Your task to perform on an android device: set default search engine in the chrome app Image 0: 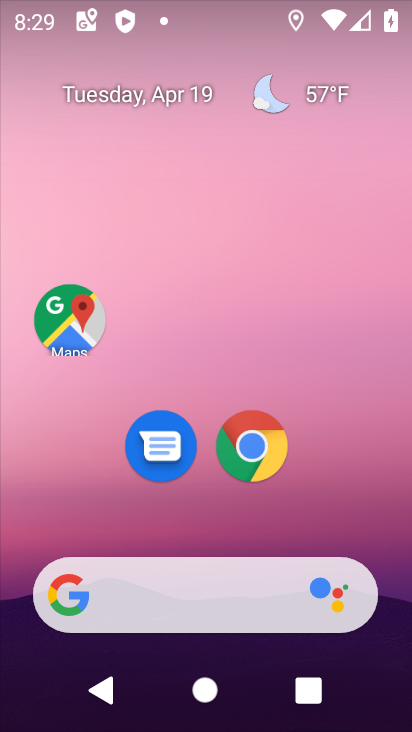
Step 0: click (259, 449)
Your task to perform on an android device: set default search engine in the chrome app Image 1: 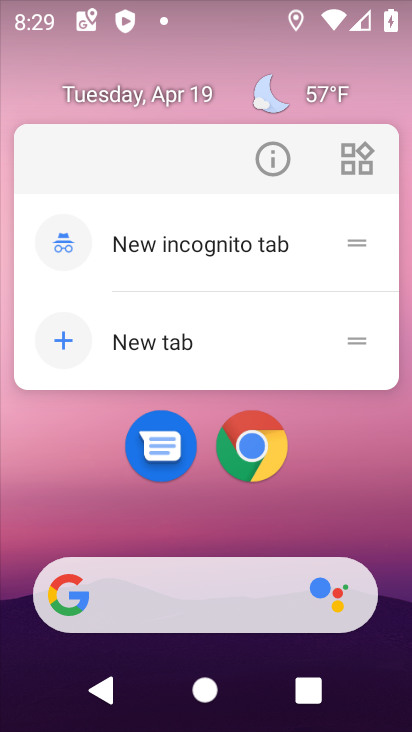
Step 1: click (247, 444)
Your task to perform on an android device: set default search engine in the chrome app Image 2: 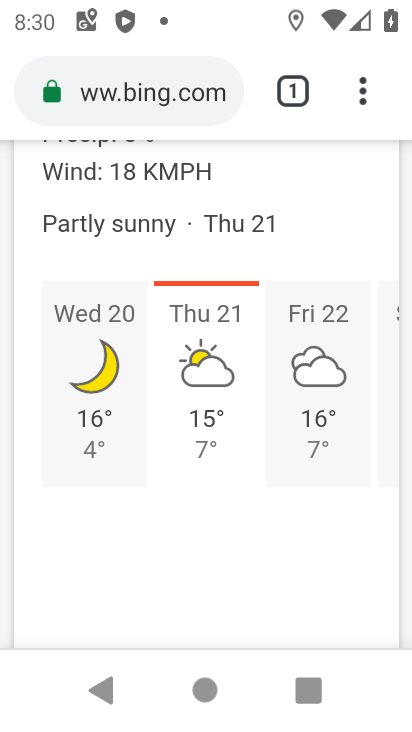
Step 2: click (365, 91)
Your task to perform on an android device: set default search engine in the chrome app Image 3: 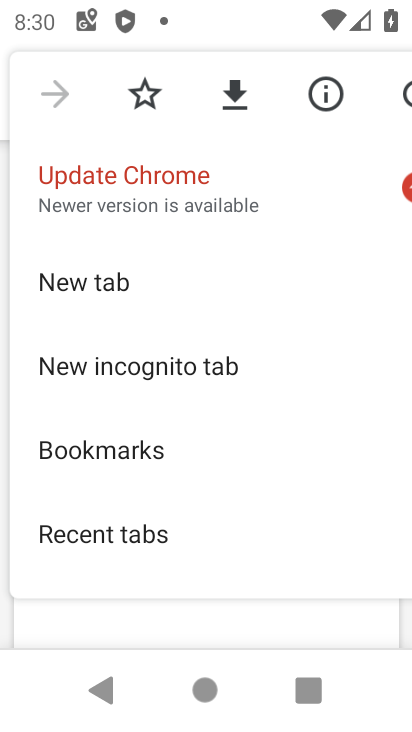
Step 3: drag from (161, 476) to (172, 219)
Your task to perform on an android device: set default search engine in the chrome app Image 4: 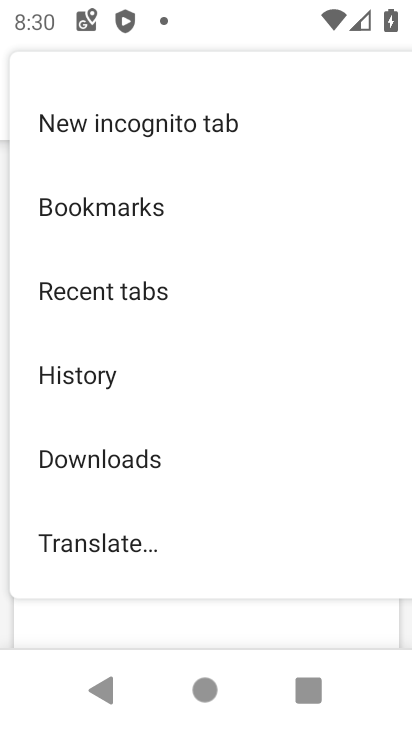
Step 4: drag from (146, 495) to (133, 263)
Your task to perform on an android device: set default search engine in the chrome app Image 5: 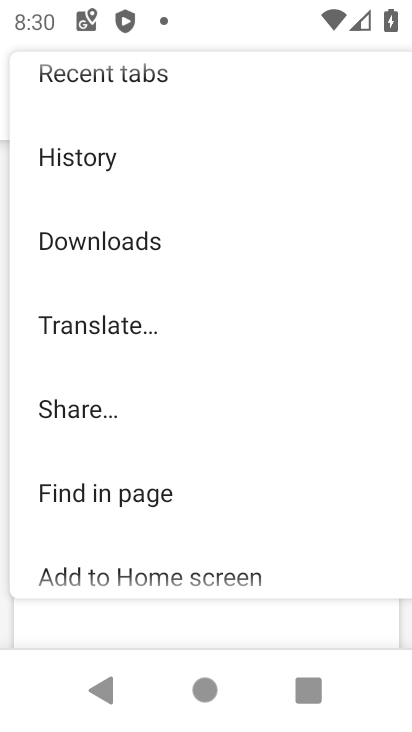
Step 5: drag from (107, 505) to (95, 196)
Your task to perform on an android device: set default search engine in the chrome app Image 6: 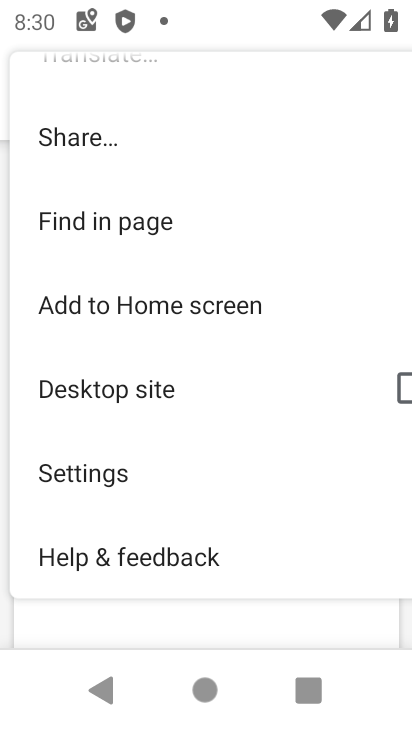
Step 6: click (88, 469)
Your task to perform on an android device: set default search engine in the chrome app Image 7: 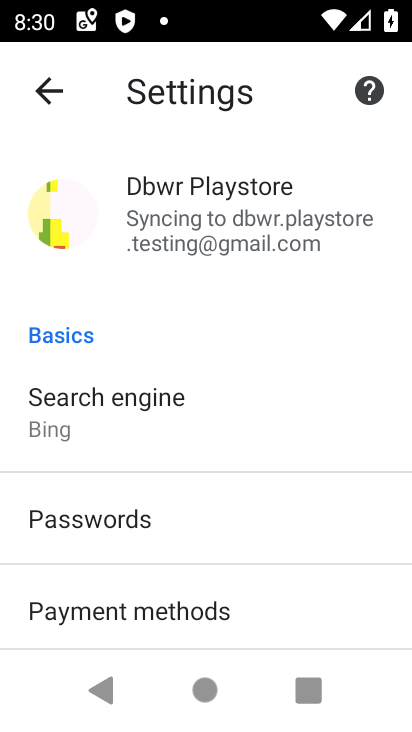
Step 7: click (81, 401)
Your task to perform on an android device: set default search engine in the chrome app Image 8: 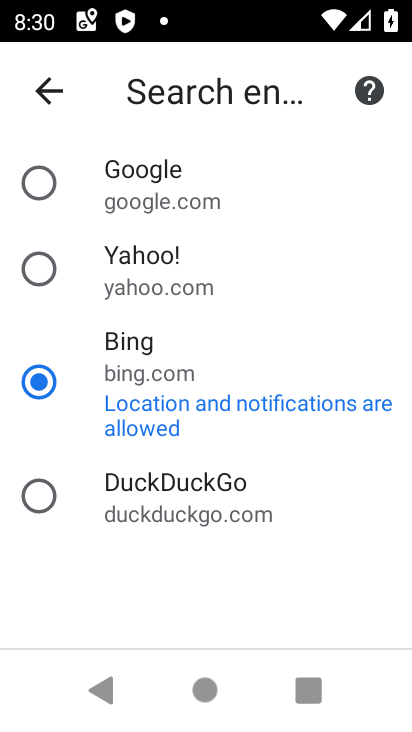
Step 8: click (109, 186)
Your task to perform on an android device: set default search engine in the chrome app Image 9: 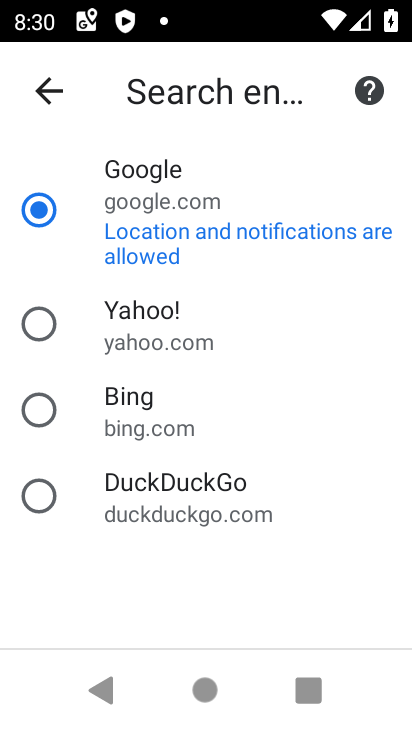
Step 9: task complete